Your task to perform on an android device: Open my contact list Image 0: 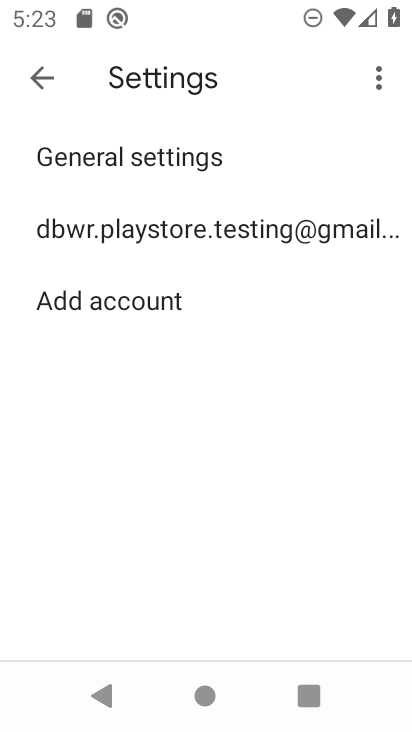
Step 0: press home button
Your task to perform on an android device: Open my contact list Image 1: 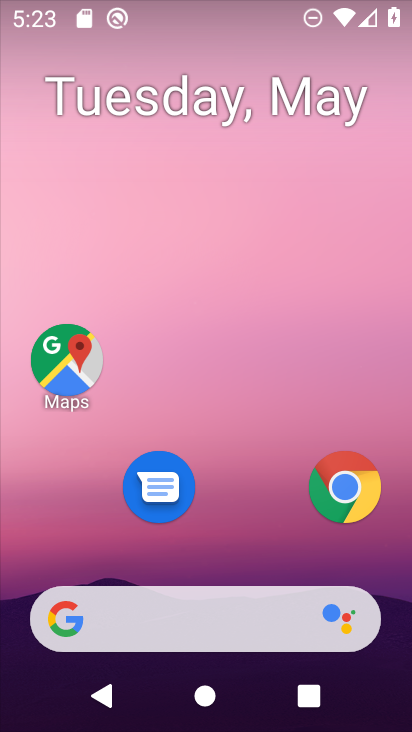
Step 1: drag from (274, 542) to (269, 49)
Your task to perform on an android device: Open my contact list Image 2: 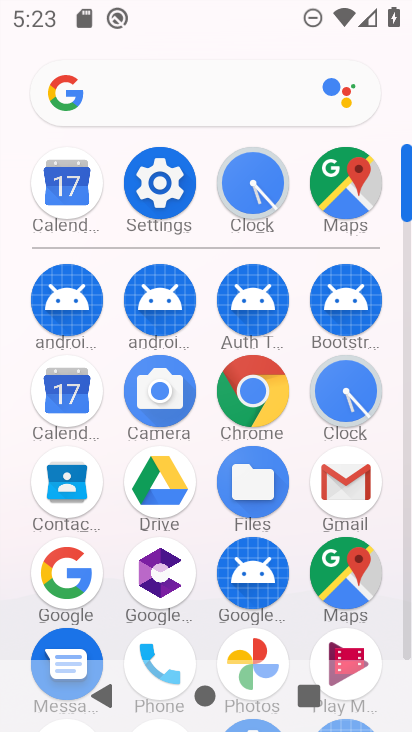
Step 2: click (43, 498)
Your task to perform on an android device: Open my contact list Image 3: 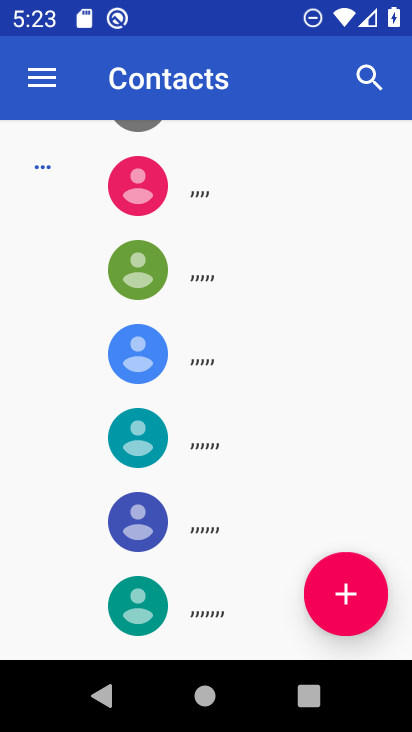
Step 3: task complete